Your task to perform on an android device: Show me recent news Image 0: 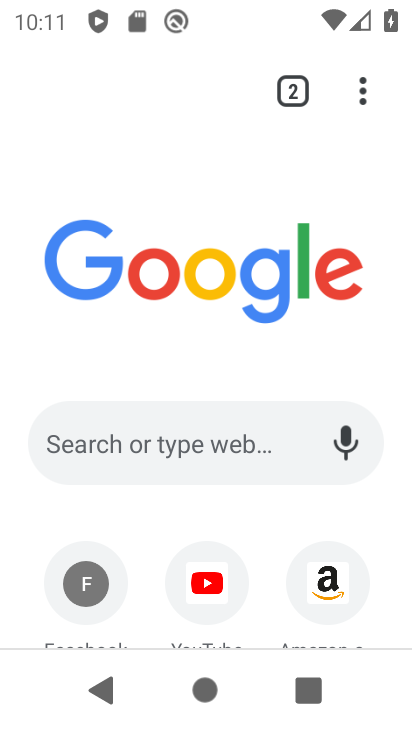
Step 0: click (176, 442)
Your task to perform on an android device: Show me recent news Image 1: 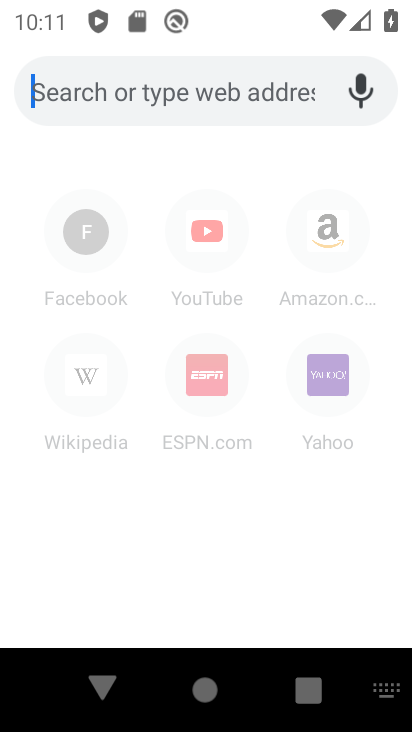
Step 1: type "recent nedws"
Your task to perform on an android device: Show me recent news Image 2: 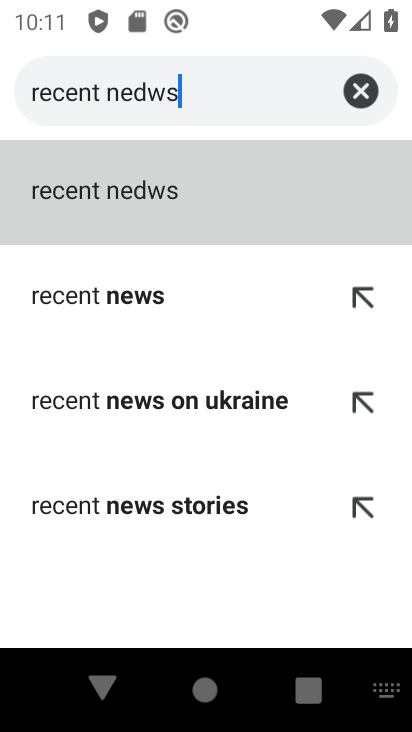
Step 2: click (145, 305)
Your task to perform on an android device: Show me recent news Image 3: 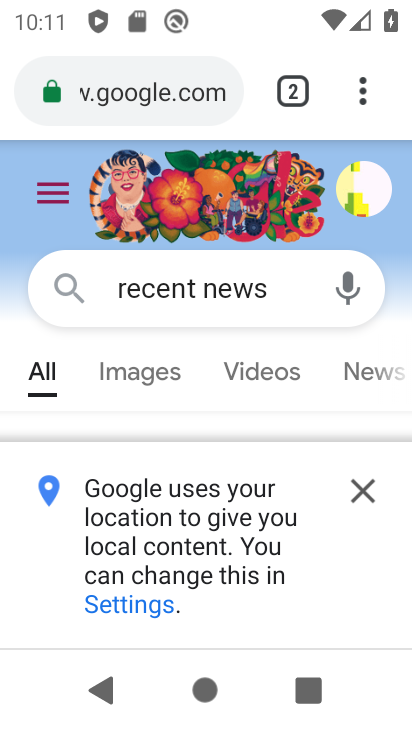
Step 3: click (369, 498)
Your task to perform on an android device: Show me recent news Image 4: 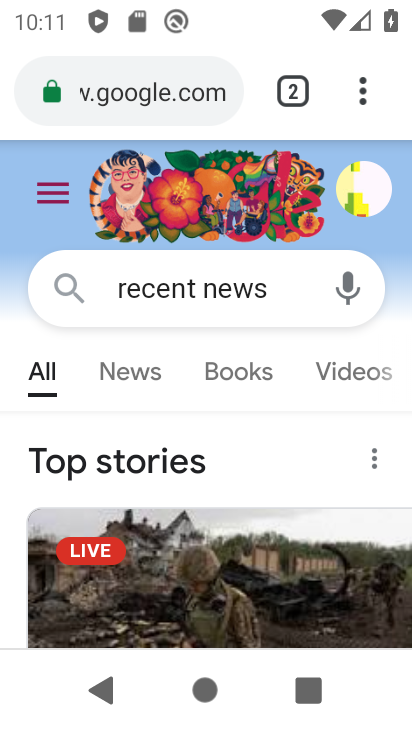
Step 4: task complete